Your task to perform on an android device: clear all cookies in the chrome app Image 0: 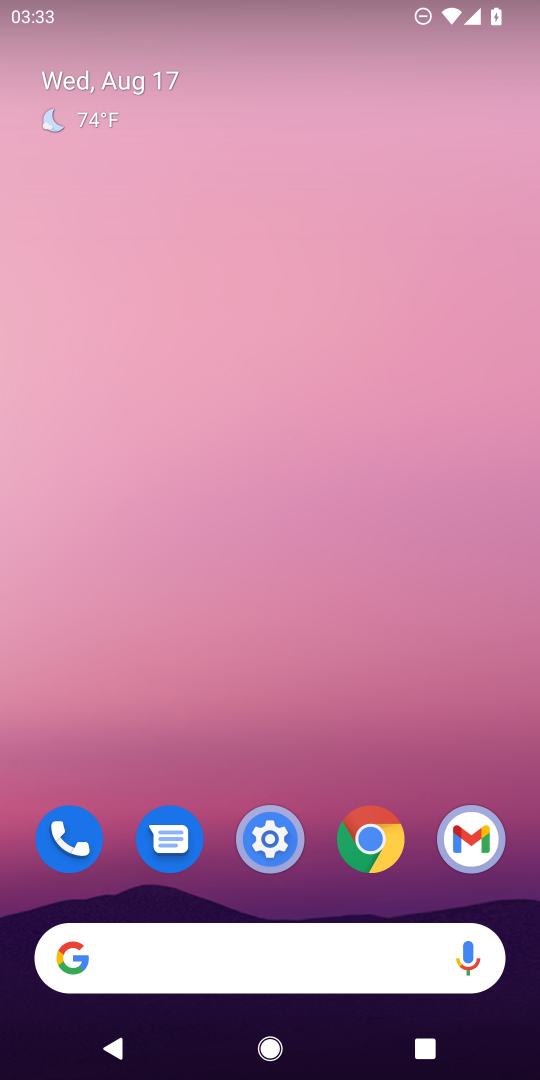
Step 0: click (359, 846)
Your task to perform on an android device: clear all cookies in the chrome app Image 1: 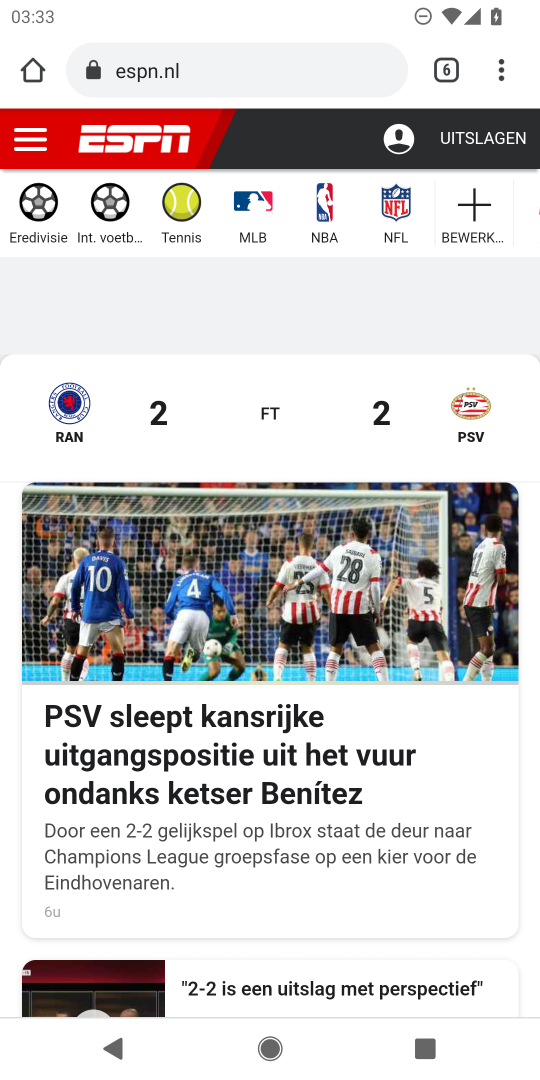
Step 1: drag from (503, 78) to (354, 431)
Your task to perform on an android device: clear all cookies in the chrome app Image 2: 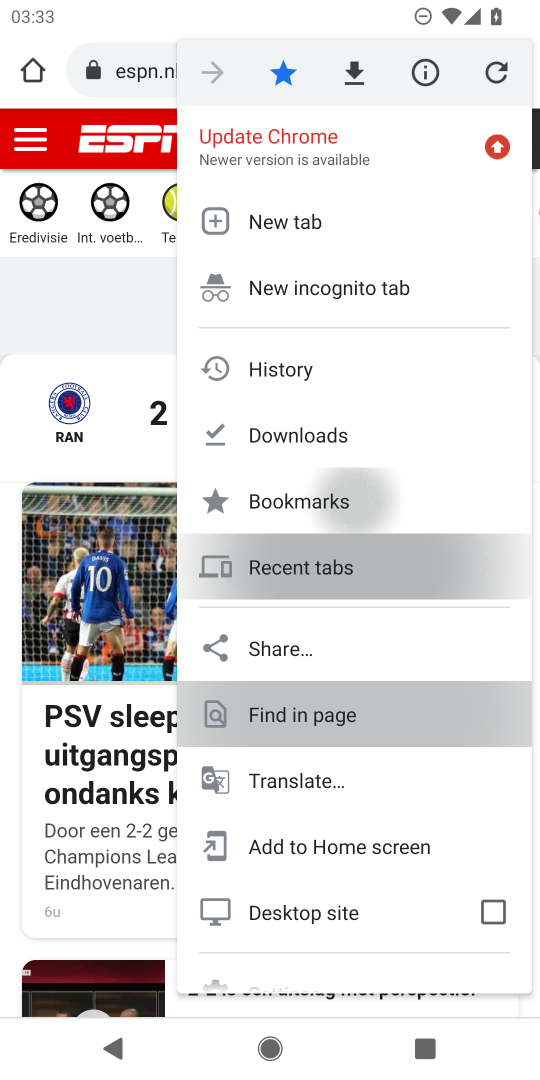
Step 2: click (357, 392)
Your task to perform on an android device: clear all cookies in the chrome app Image 3: 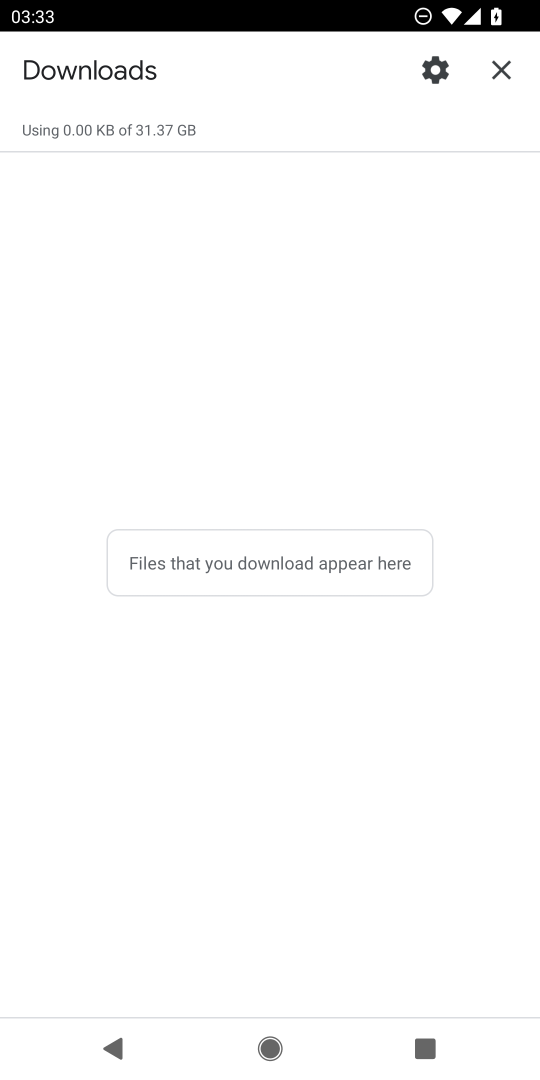
Step 3: click (495, 67)
Your task to perform on an android device: clear all cookies in the chrome app Image 4: 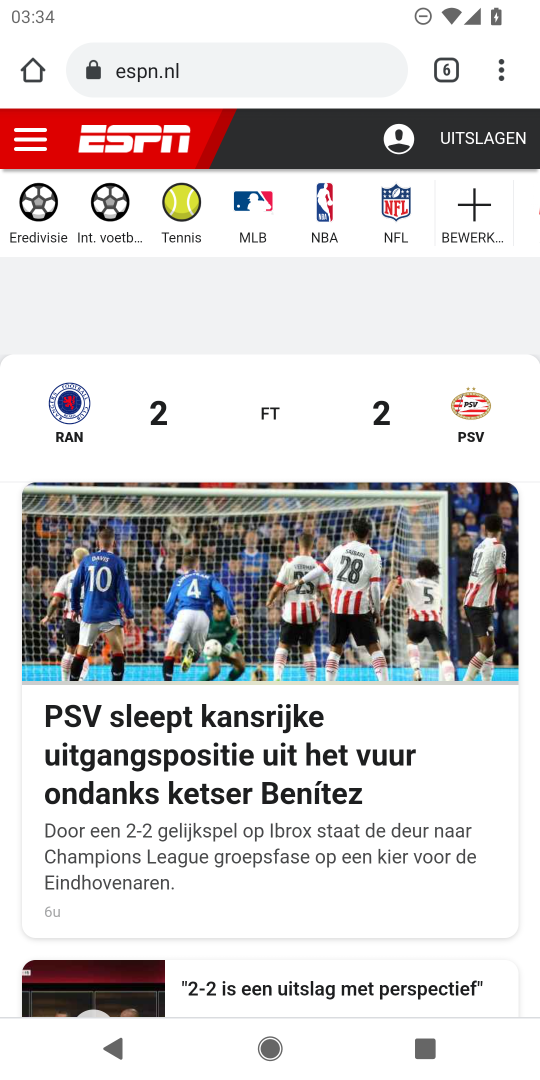
Step 4: drag from (502, 75) to (253, 358)
Your task to perform on an android device: clear all cookies in the chrome app Image 5: 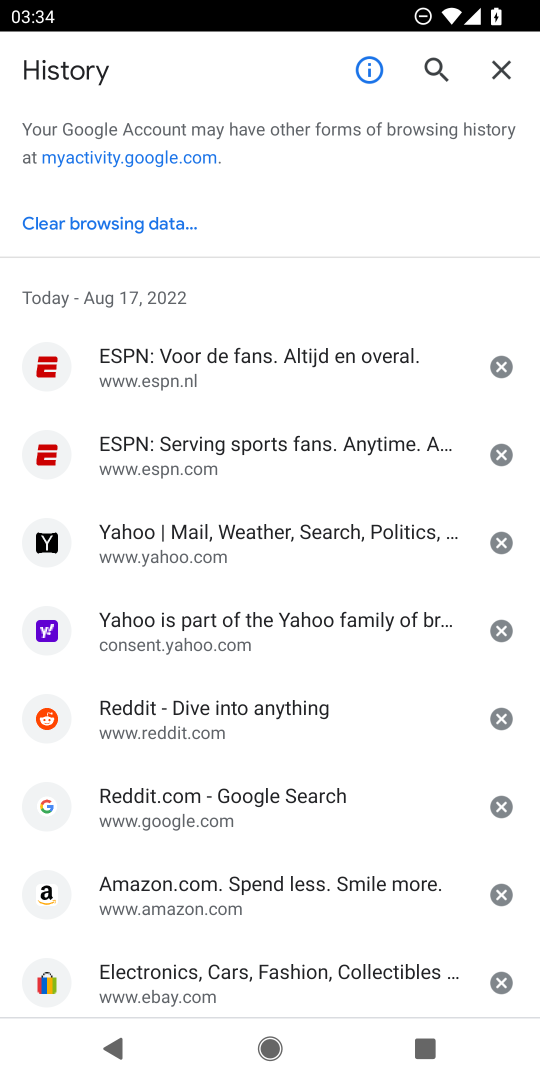
Step 5: click (94, 227)
Your task to perform on an android device: clear all cookies in the chrome app Image 6: 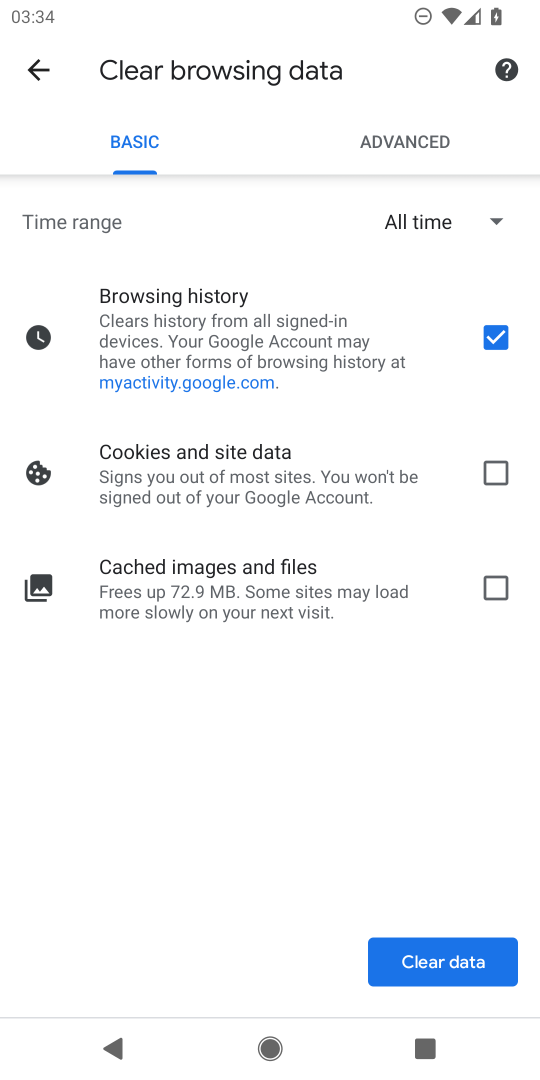
Step 6: click (498, 469)
Your task to perform on an android device: clear all cookies in the chrome app Image 7: 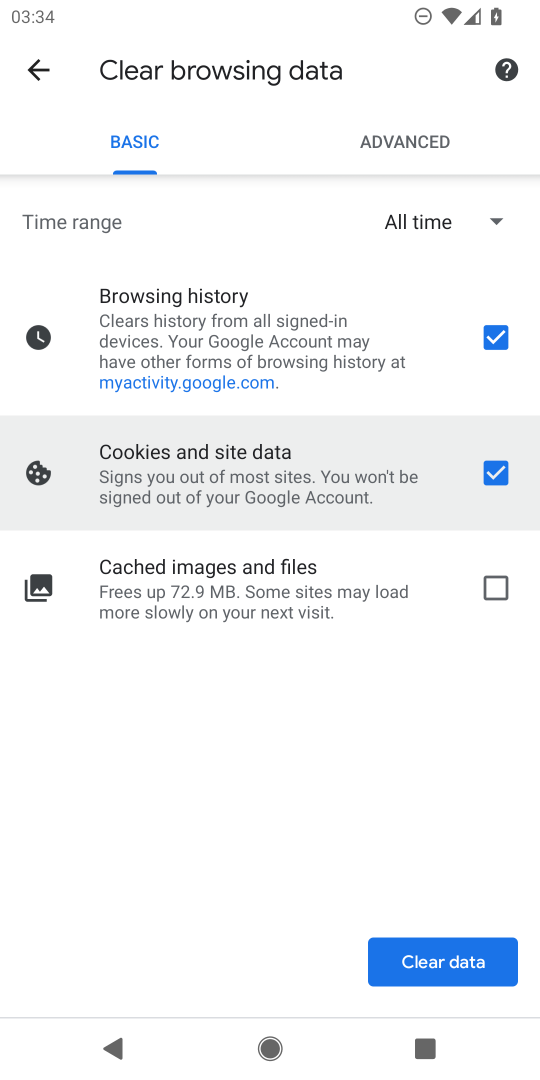
Step 7: click (487, 333)
Your task to perform on an android device: clear all cookies in the chrome app Image 8: 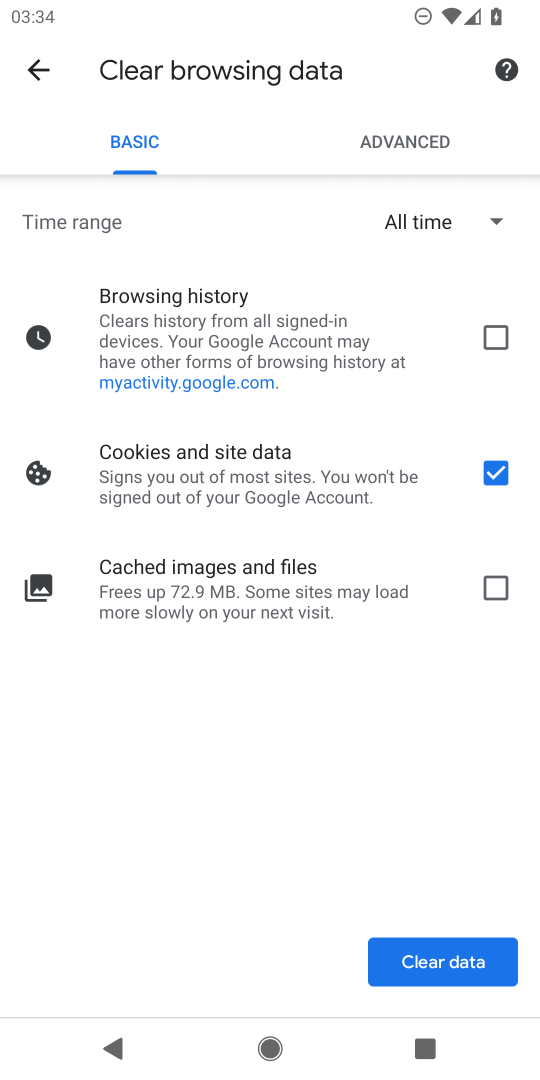
Step 8: click (443, 949)
Your task to perform on an android device: clear all cookies in the chrome app Image 9: 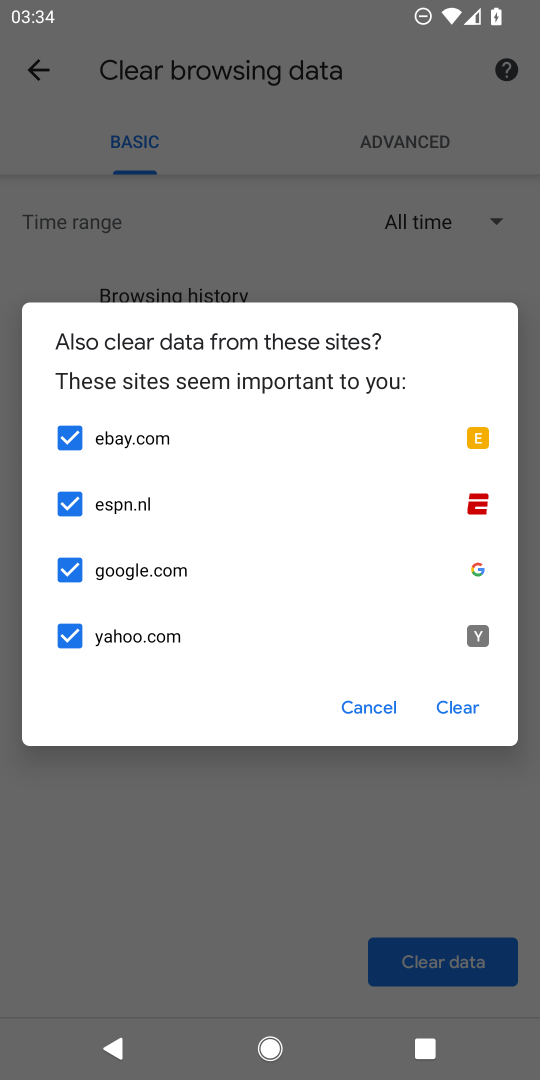
Step 9: click (453, 701)
Your task to perform on an android device: clear all cookies in the chrome app Image 10: 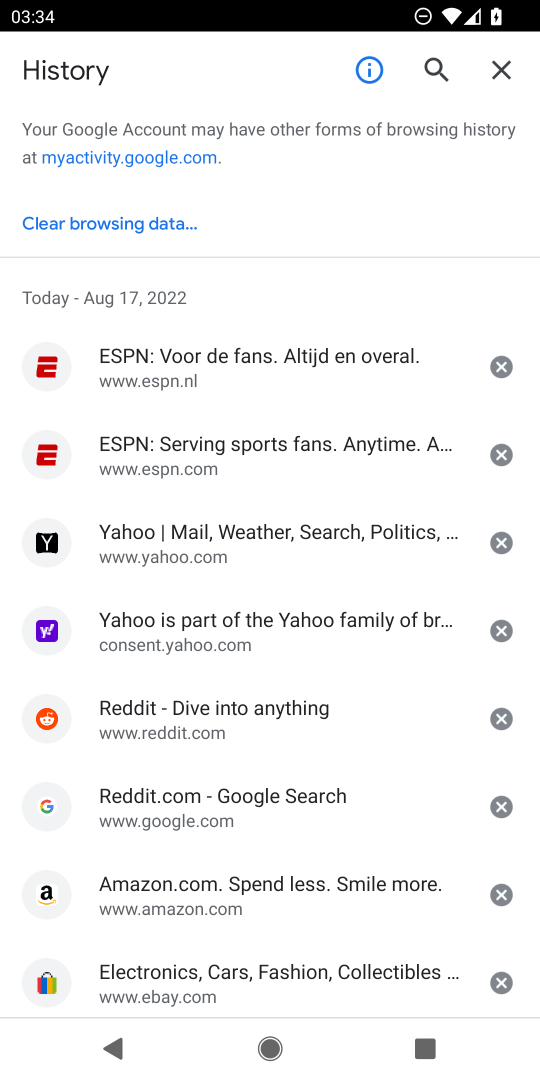
Step 10: task complete